Your task to perform on an android device: install app "AliExpress" Image 0: 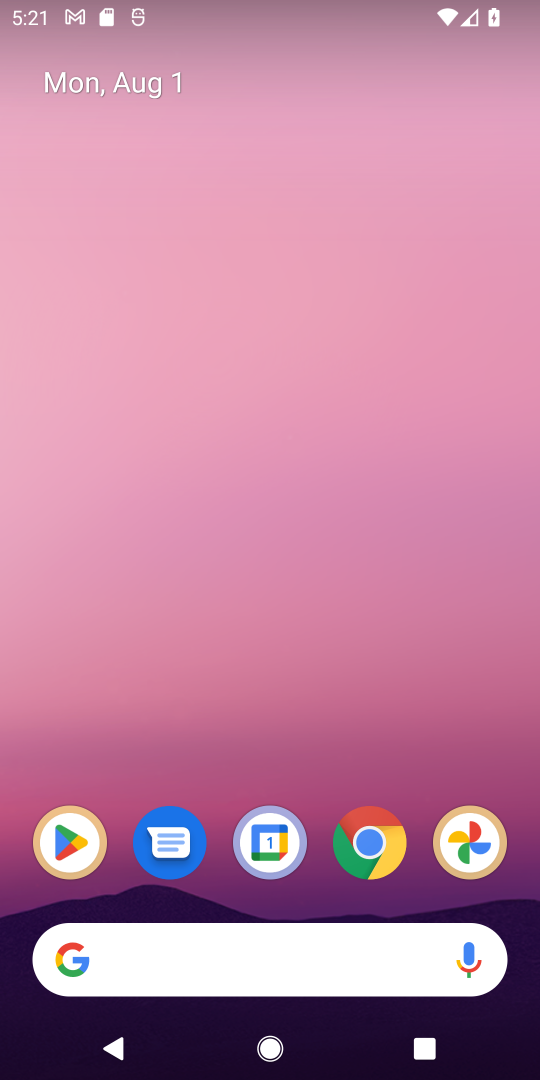
Step 0: drag from (338, 985) to (329, 216)
Your task to perform on an android device: install app "AliExpress" Image 1: 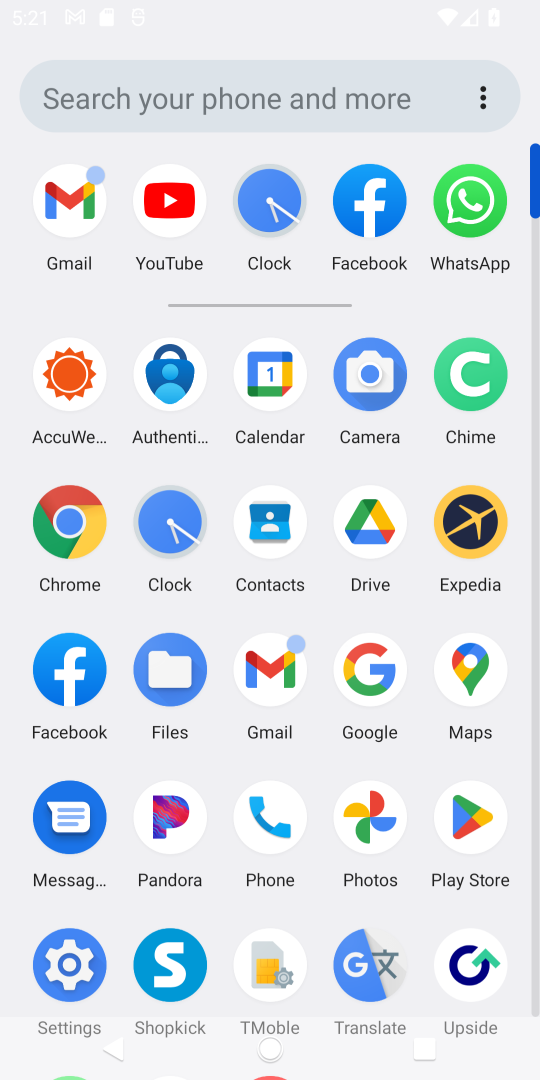
Step 1: drag from (368, 889) to (292, 240)
Your task to perform on an android device: install app "AliExpress" Image 2: 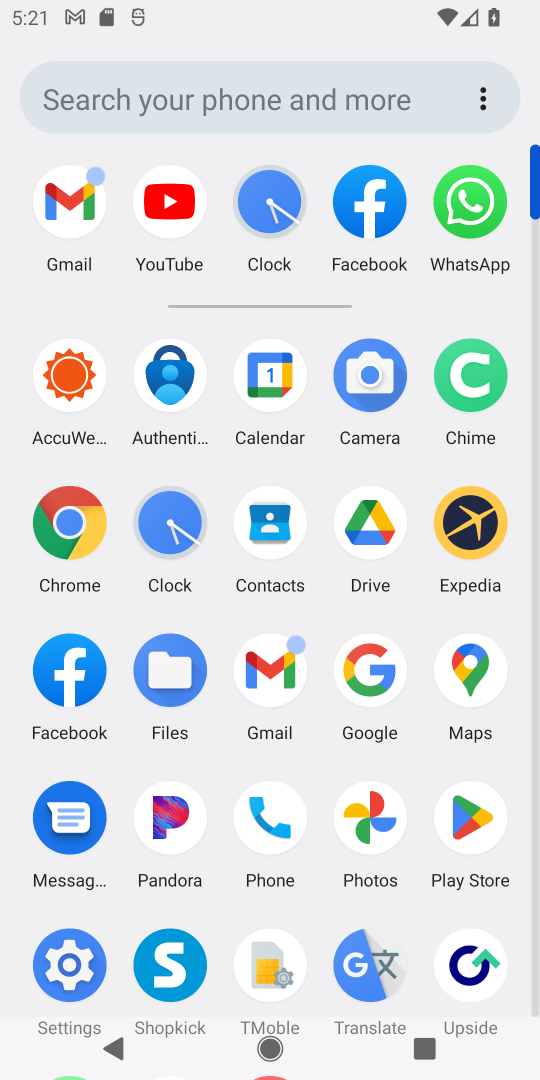
Step 2: drag from (349, 1071) to (338, 188)
Your task to perform on an android device: install app "AliExpress" Image 3: 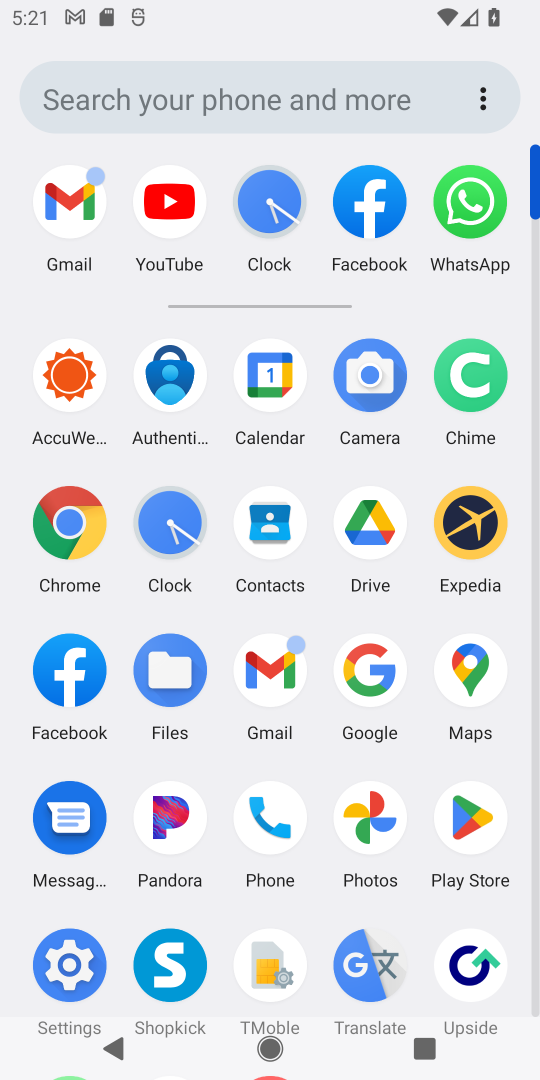
Step 3: click (454, 834)
Your task to perform on an android device: install app "AliExpress" Image 4: 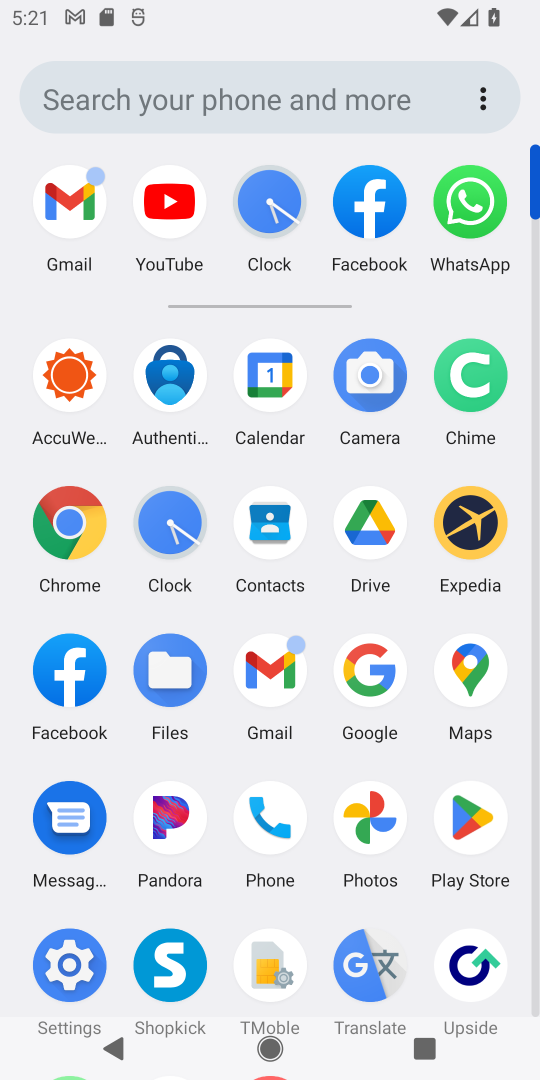
Step 4: click (455, 834)
Your task to perform on an android device: install app "AliExpress" Image 5: 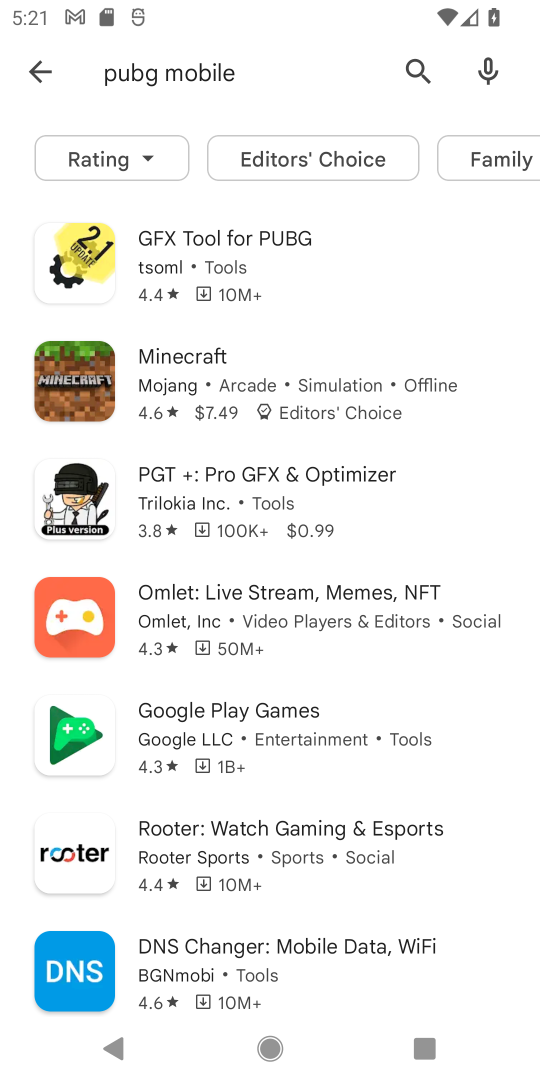
Step 5: click (54, 69)
Your task to perform on an android device: install app "AliExpress" Image 6: 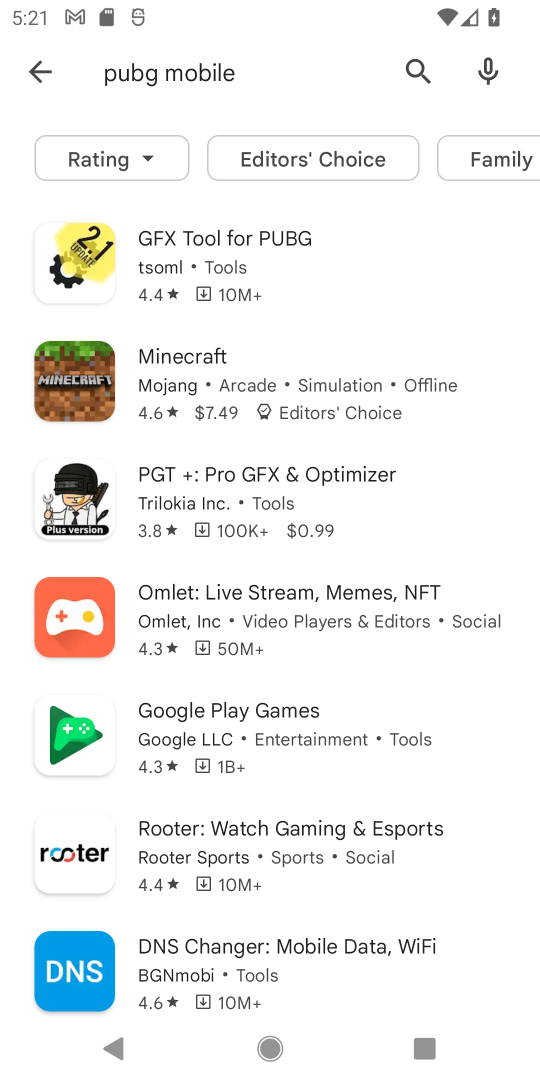
Step 6: click (42, 74)
Your task to perform on an android device: install app "AliExpress" Image 7: 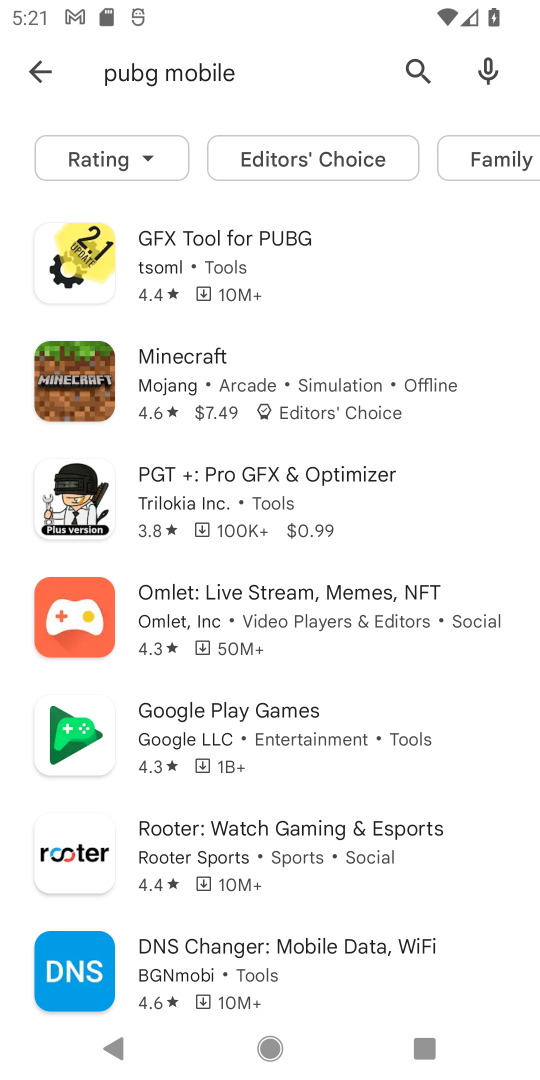
Step 7: click (46, 76)
Your task to perform on an android device: install app "AliExpress" Image 8: 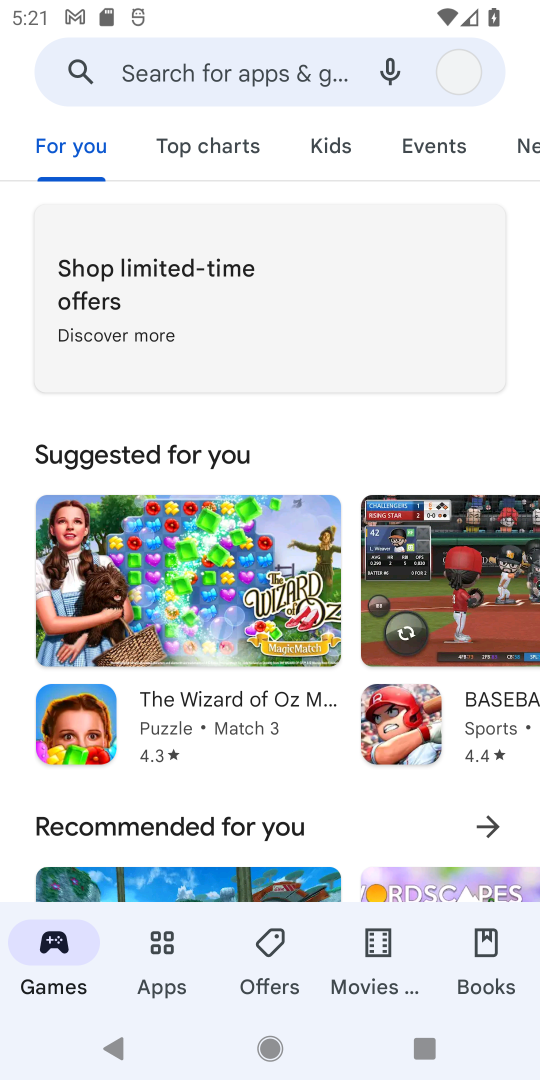
Step 8: click (46, 76)
Your task to perform on an android device: install app "AliExpress" Image 9: 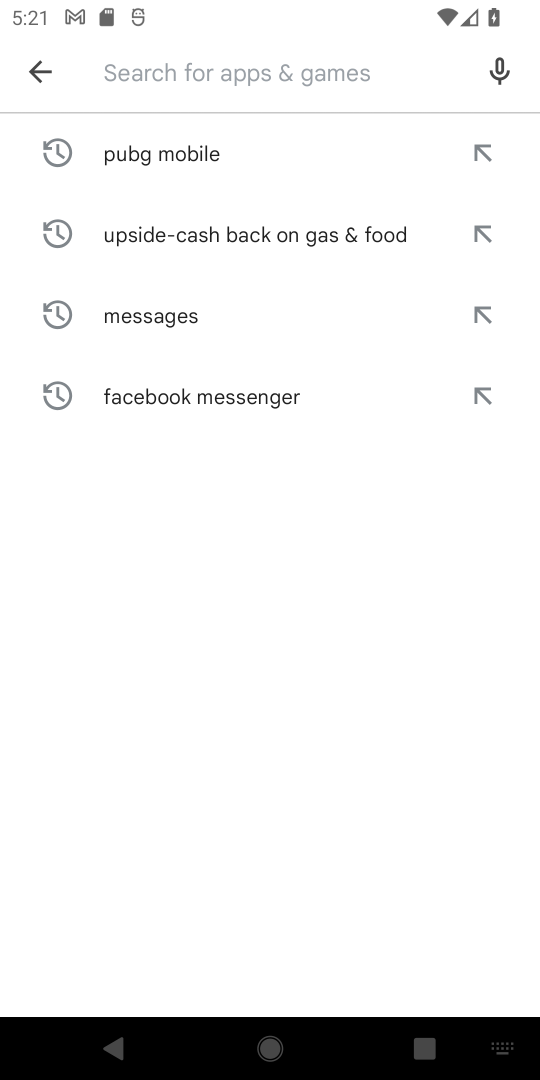
Step 9: click (134, 79)
Your task to perform on an android device: install app "AliExpress" Image 10: 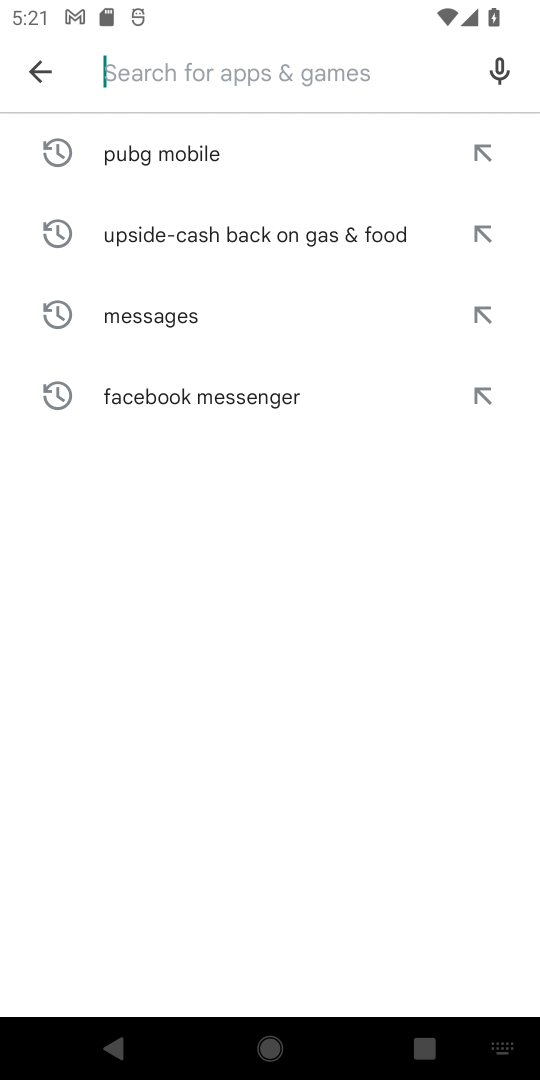
Step 10: type "Aliexpress"
Your task to perform on an android device: install app "AliExpress" Image 11: 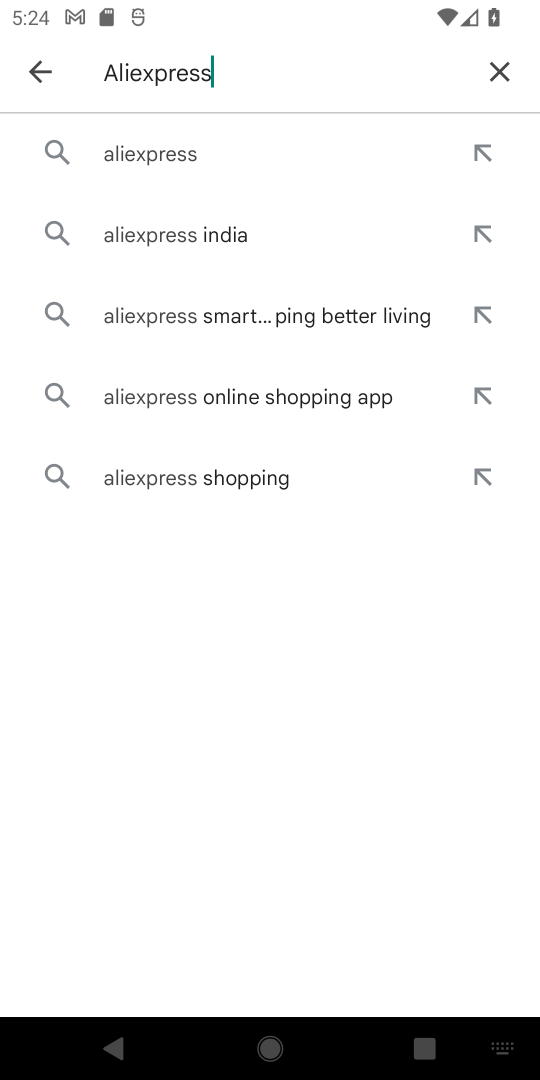
Step 11: click (211, 148)
Your task to perform on an android device: install app "AliExpress" Image 12: 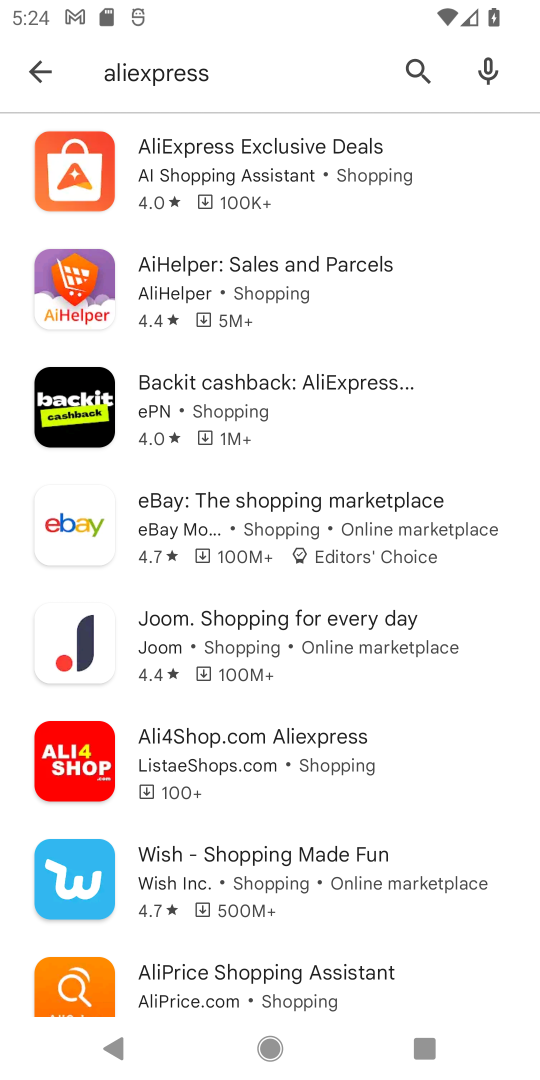
Step 12: task complete